Your task to perform on an android device: open app "WhatsApp Messenger" (install if not already installed) Image 0: 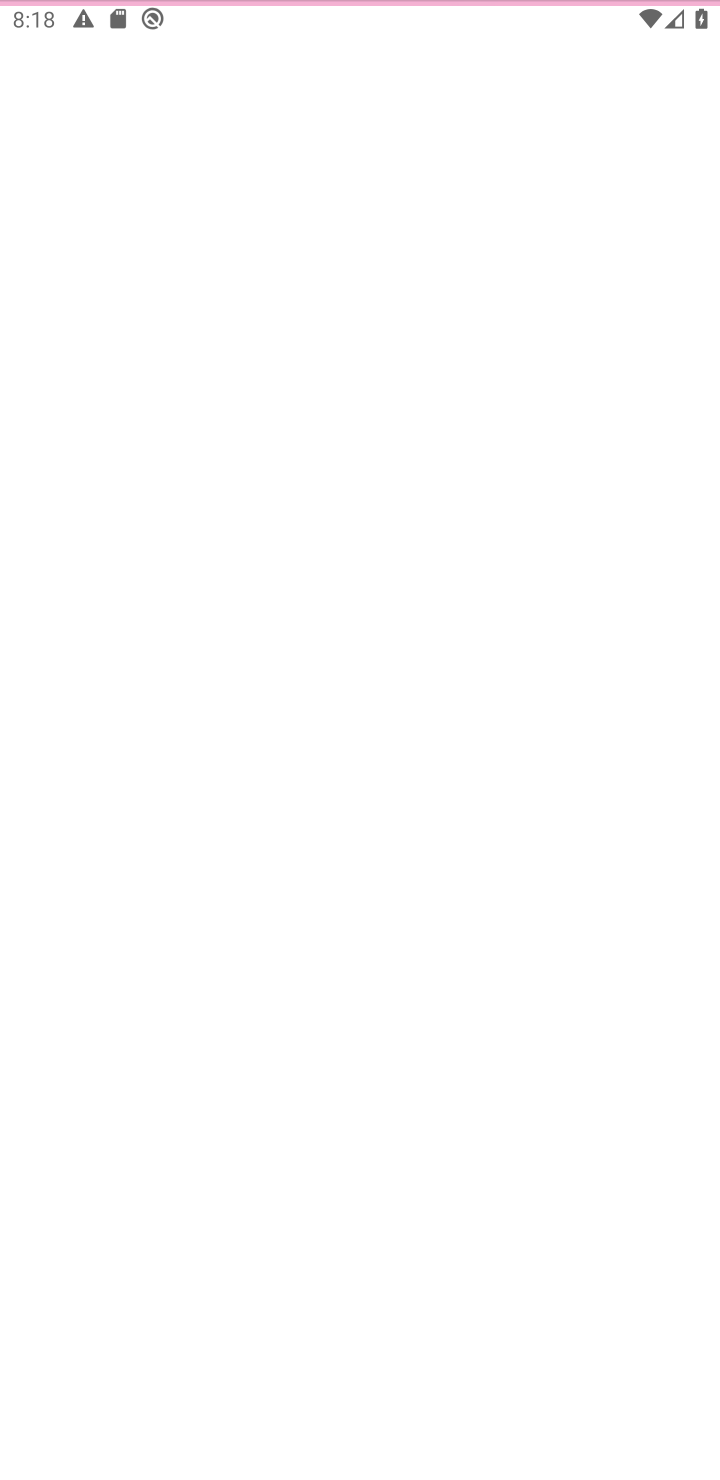
Step 0: click (617, 88)
Your task to perform on an android device: open app "WhatsApp Messenger" (install if not already installed) Image 1: 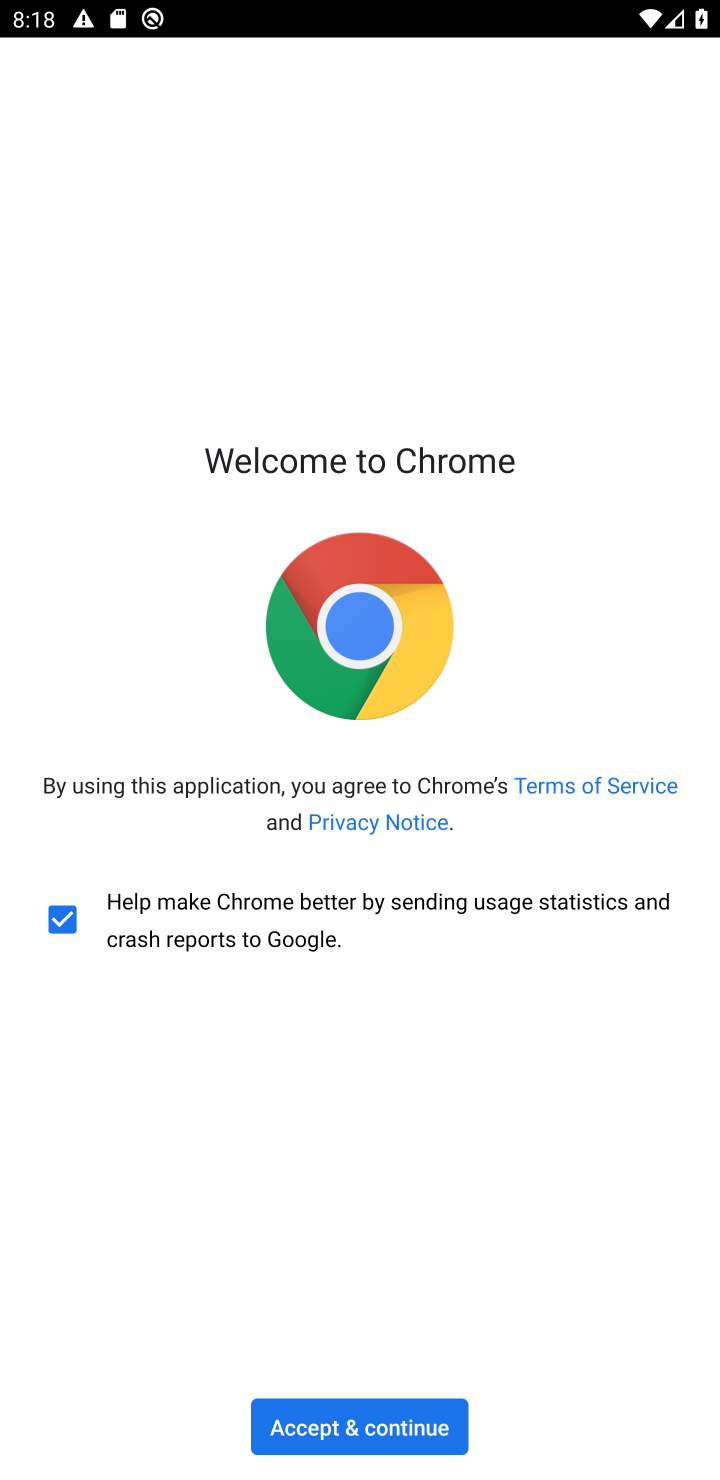
Step 1: press home button
Your task to perform on an android device: open app "WhatsApp Messenger" (install if not already installed) Image 2: 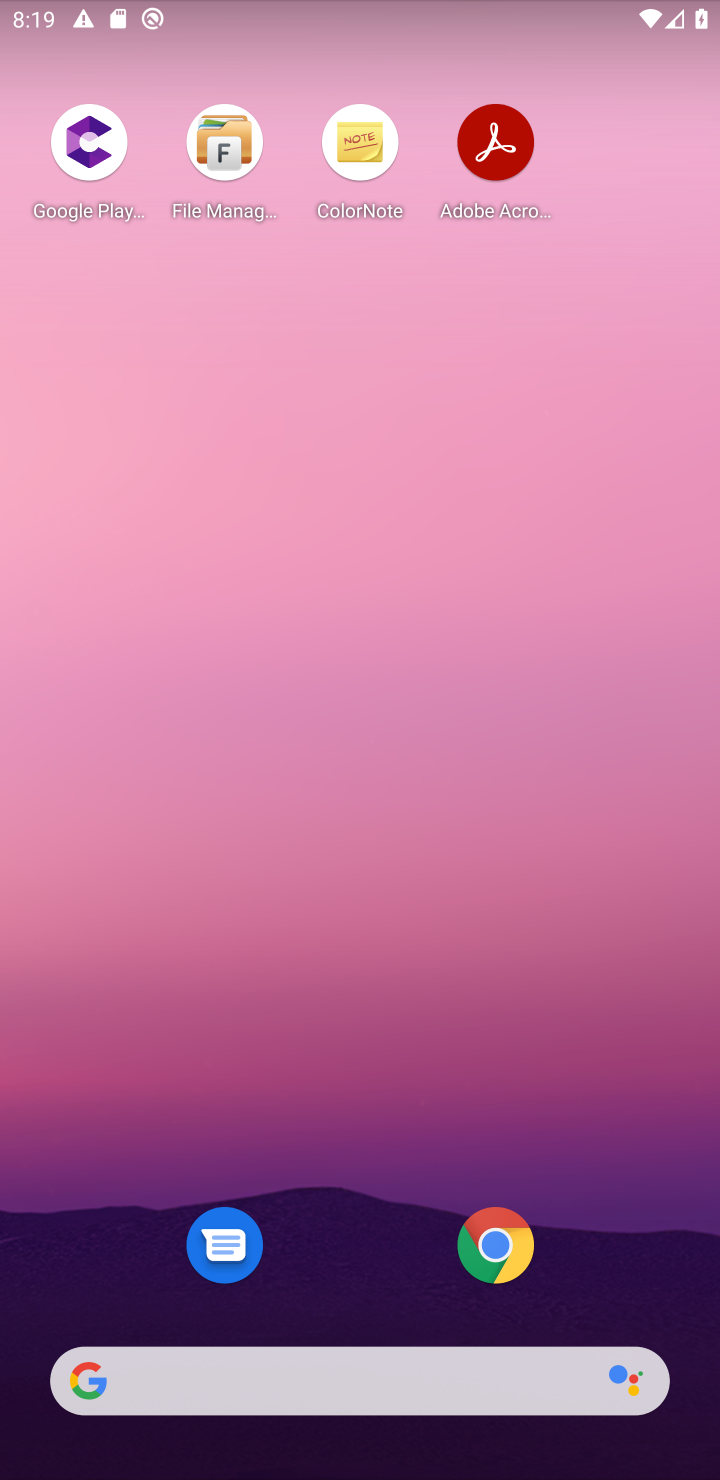
Step 2: drag from (571, 1049) to (438, 84)
Your task to perform on an android device: open app "WhatsApp Messenger" (install if not already installed) Image 3: 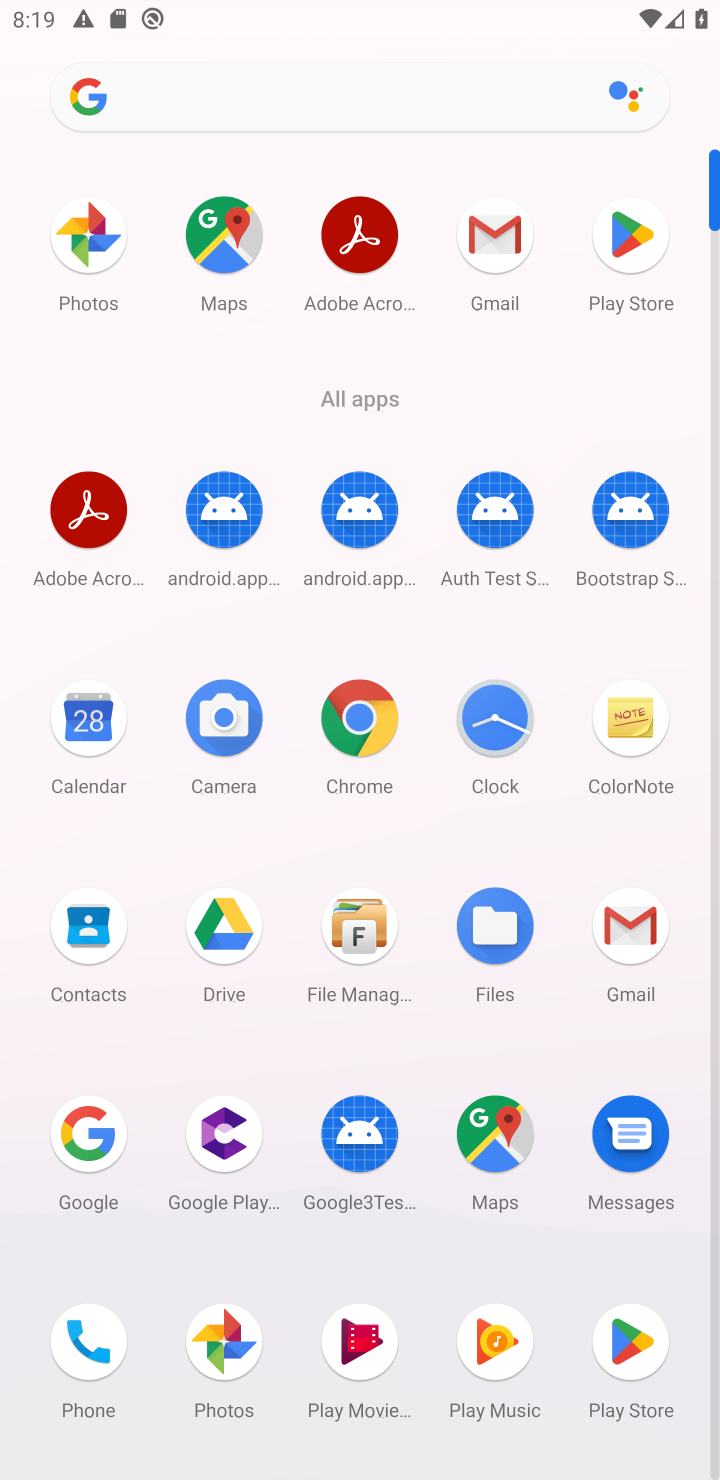
Step 3: click (641, 252)
Your task to perform on an android device: open app "WhatsApp Messenger" (install if not already installed) Image 4: 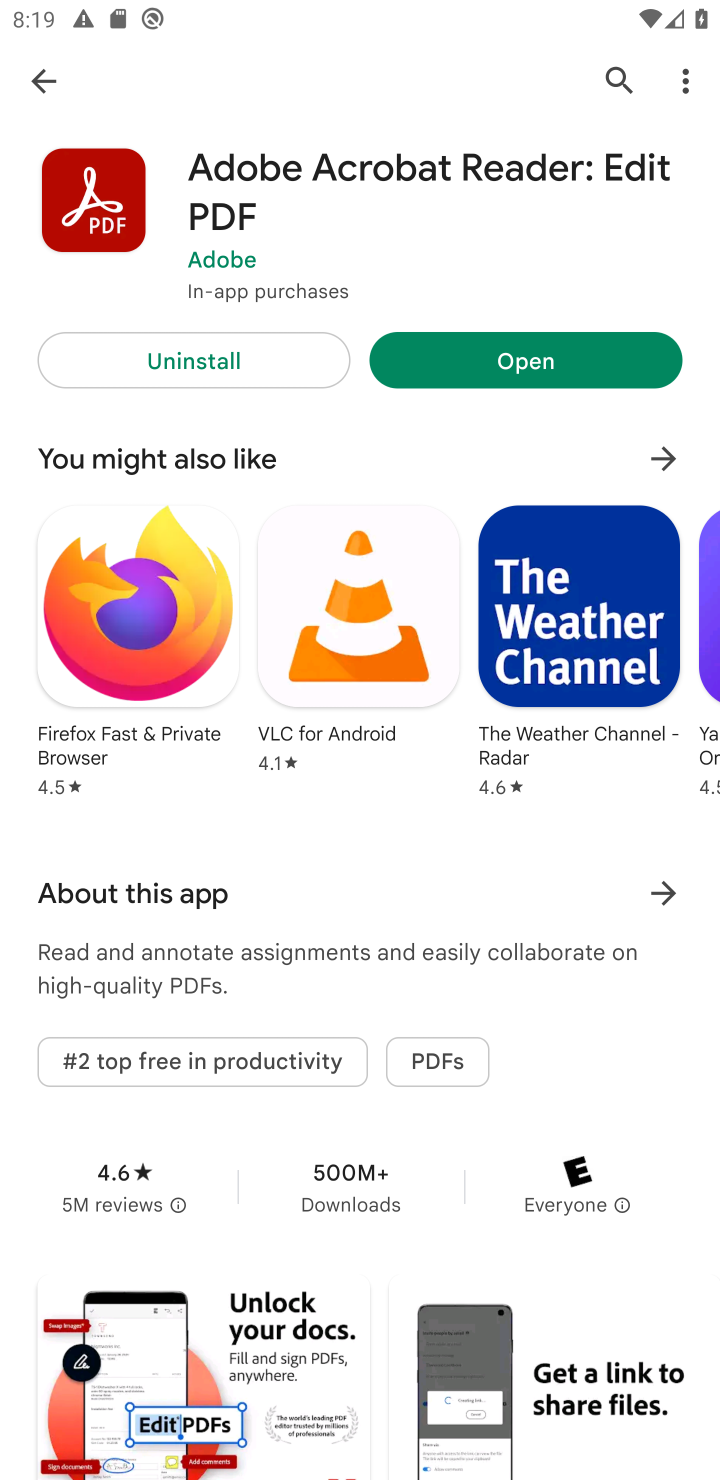
Step 4: click (621, 81)
Your task to perform on an android device: open app "WhatsApp Messenger" (install if not already installed) Image 5: 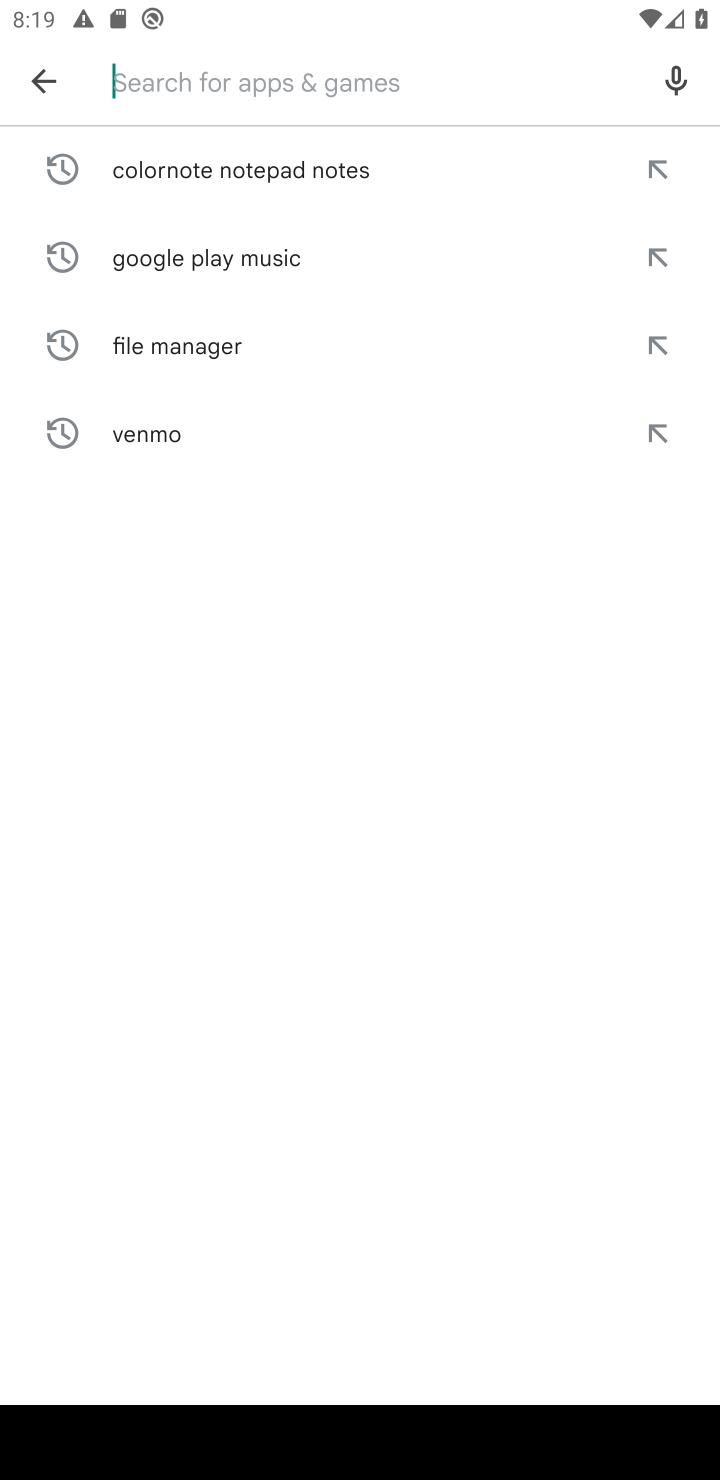
Step 5: type "WhatsApp Messenger"
Your task to perform on an android device: open app "WhatsApp Messenger" (install if not already installed) Image 6: 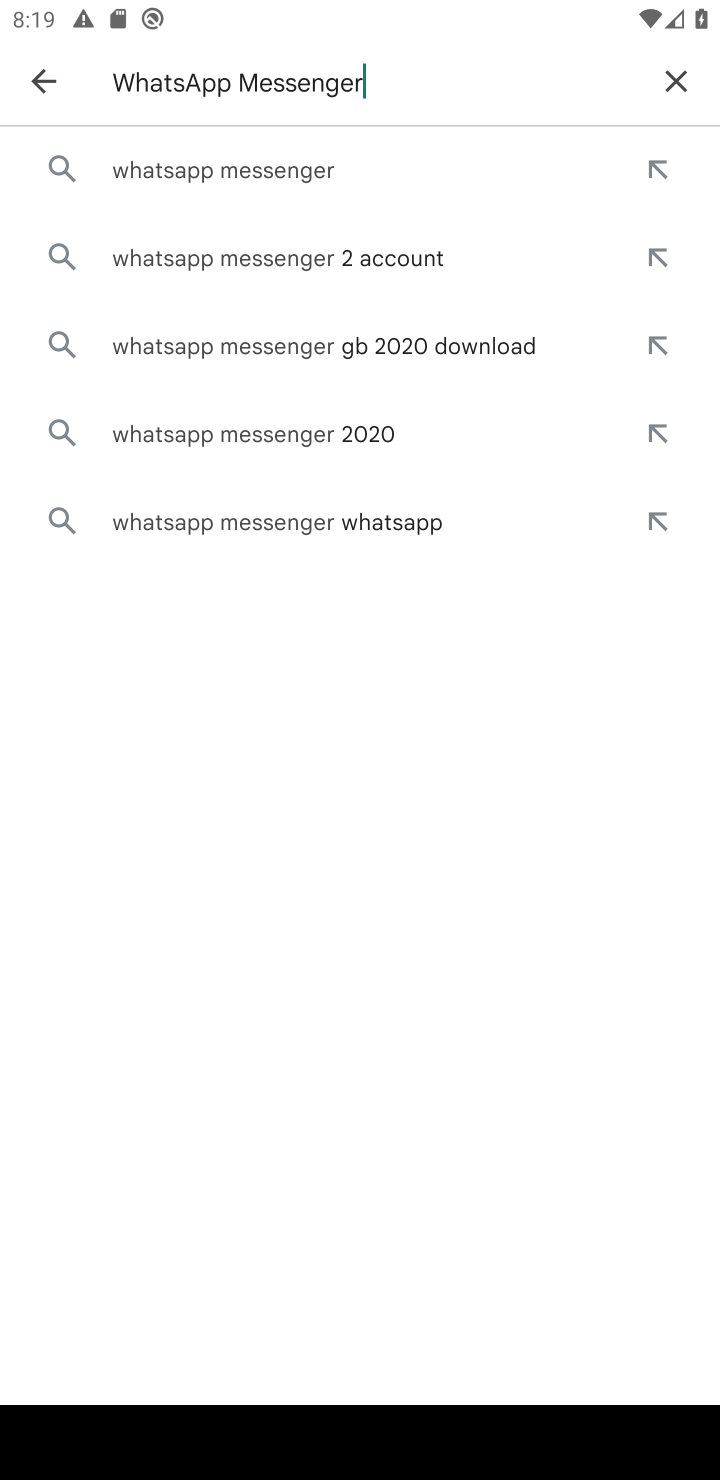
Step 6: click (158, 159)
Your task to perform on an android device: open app "WhatsApp Messenger" (install if not already installed) Image 7: 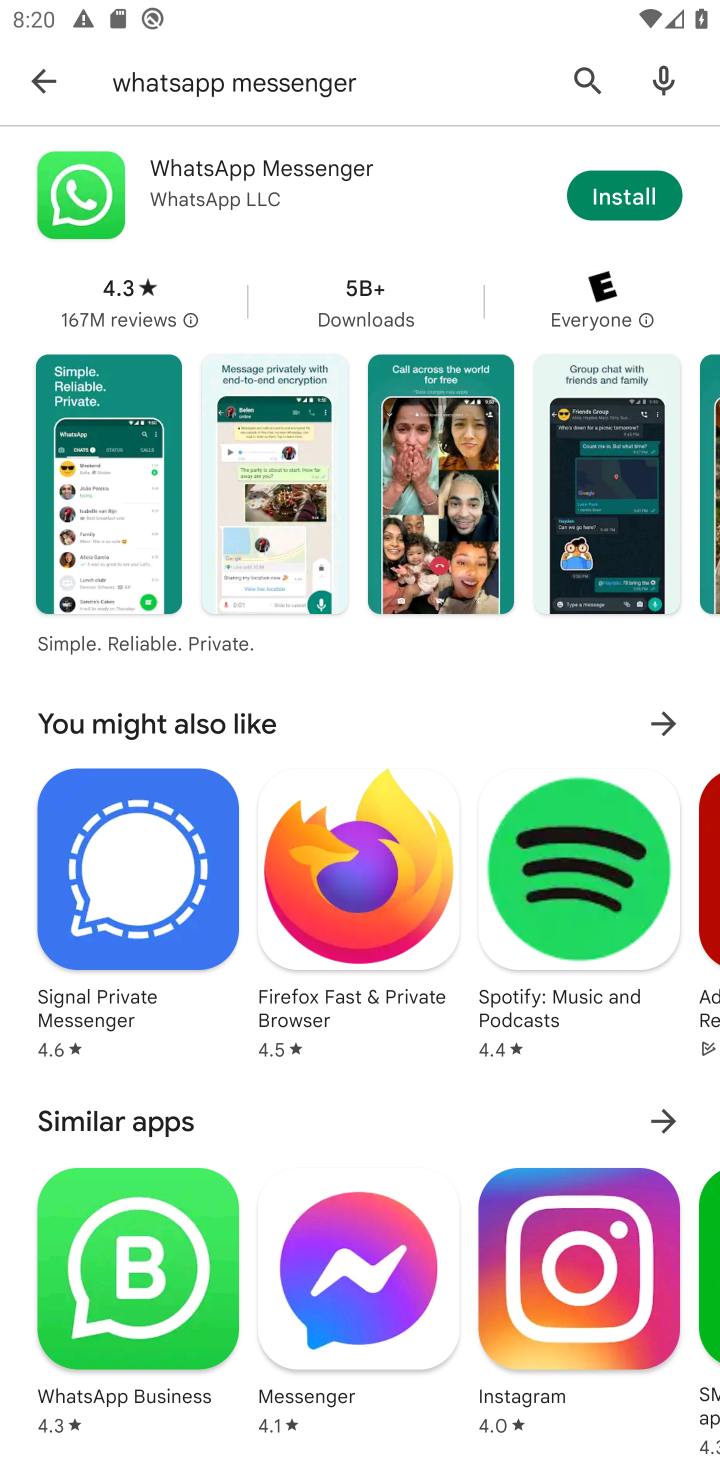
Step 7: click (196, 165)
Your task to perform on an android device: open app "WhatsApp Messenger" (install if not already installed) Image 8: 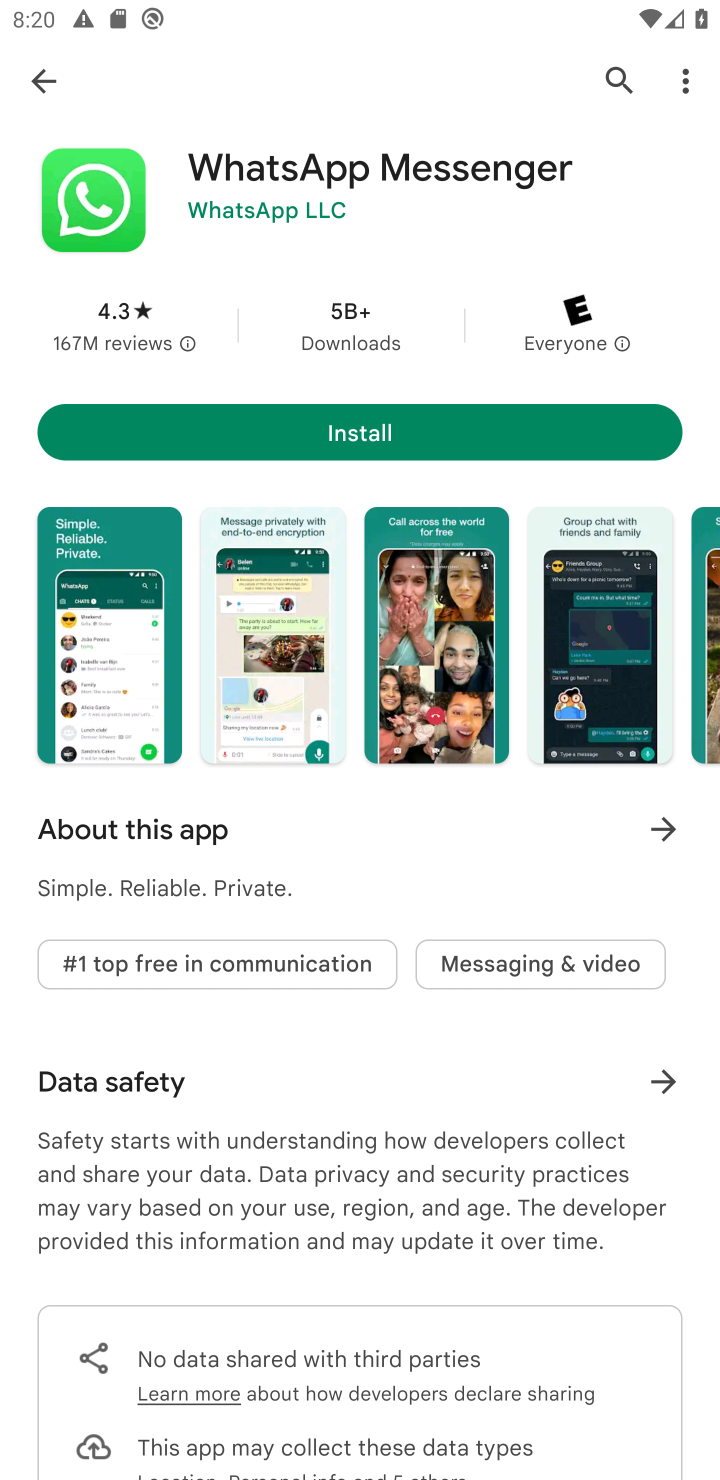
Step 8: click (467, 432)
Your task to perform on an android device: open app "WhatsApp Messenger" (install if not already installed) Image 9: 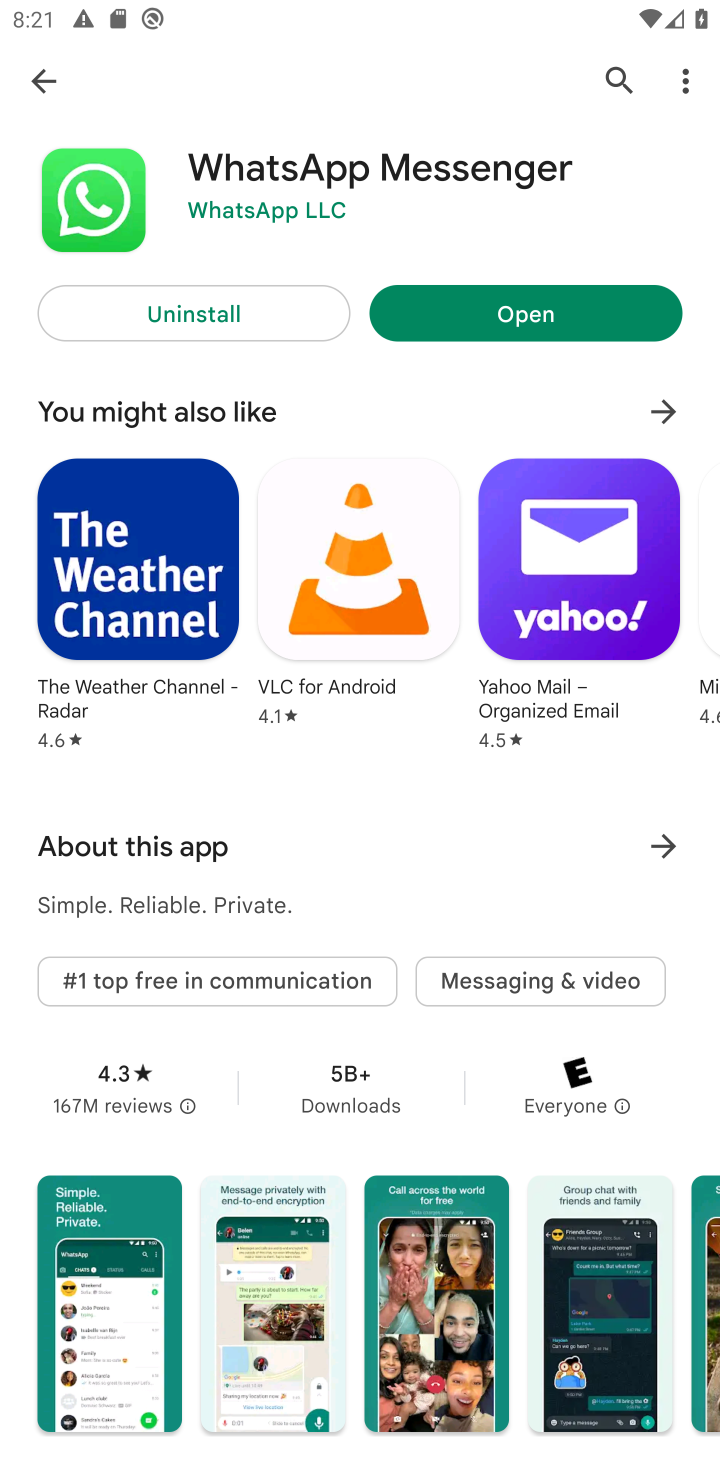
Step 9: click (505, 306)
Your task to perform on an android device: open app "WhatsApp Messenger" (install if not already installed) Image 10: 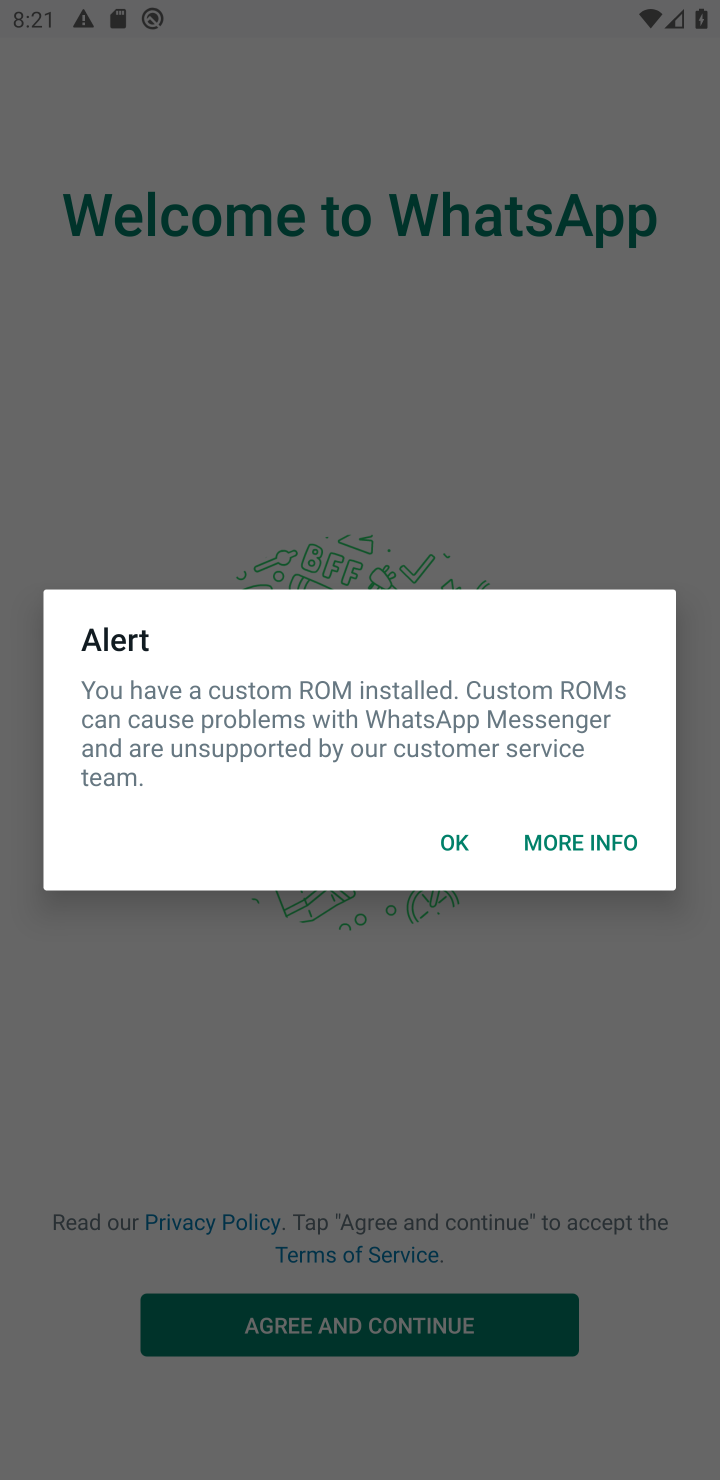
Step 10: task complete